Your task to perform on an android device: toggle priority inbox in the gmail app Image 0: 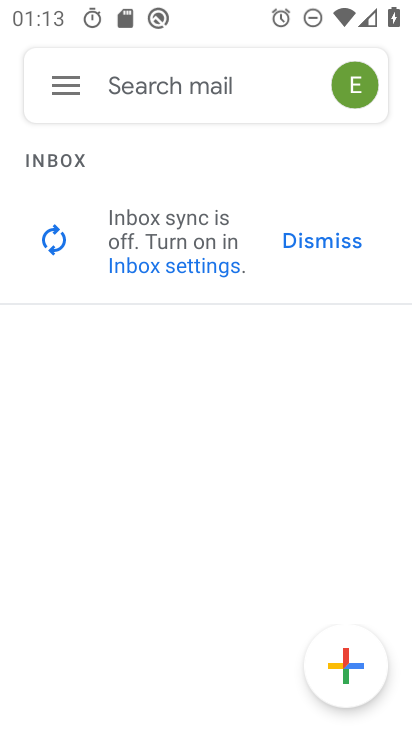
Step 0: press back button
Your task to perform on an android device: toggle priority inbox in the gmail app Image 1: 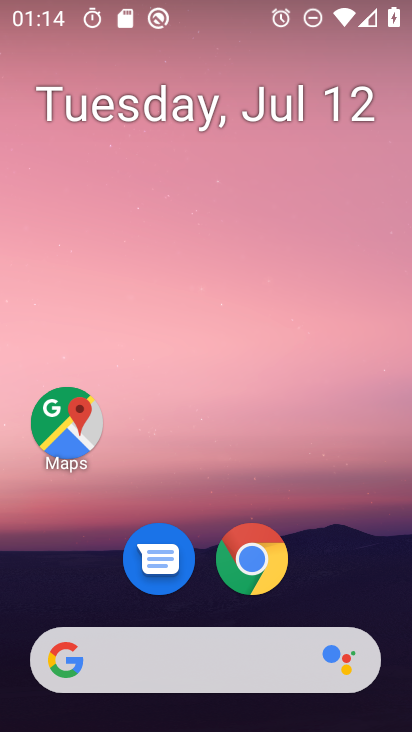
Step 1: drag from (234, 613) to (295, 25)
Your task to perform on an android device: toggle priority inbox in the gmail app Image 2: 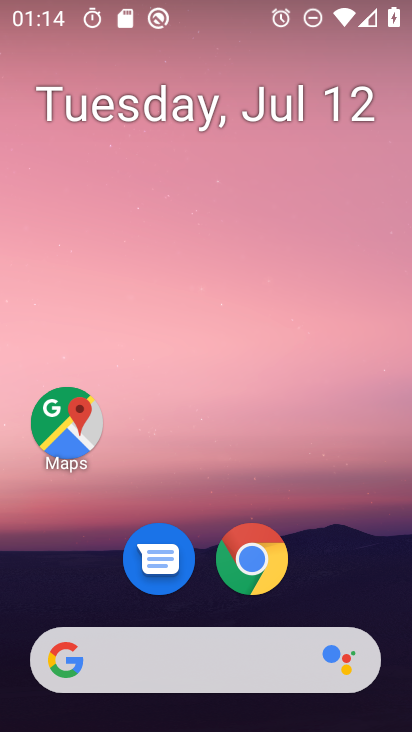
Step 2: drag from (80, 602) to (210, 101)
Your task to perform on an android device: toggle priority inbox in the gmail app Image 3: 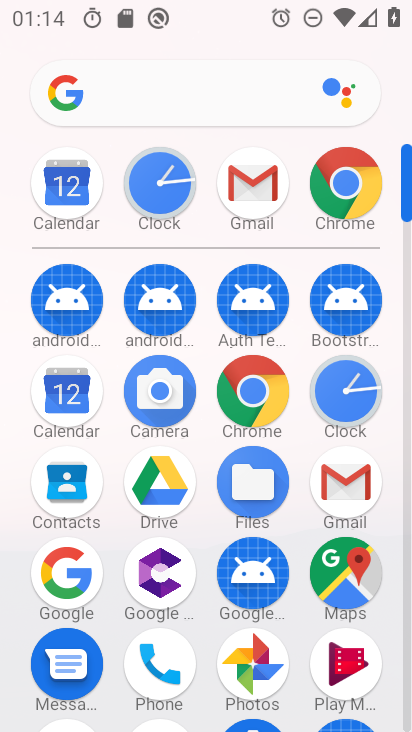
Step 3: click (266, 172)
Your task to perform on an android device: toggle priority inbox in the gmail app Image 4: 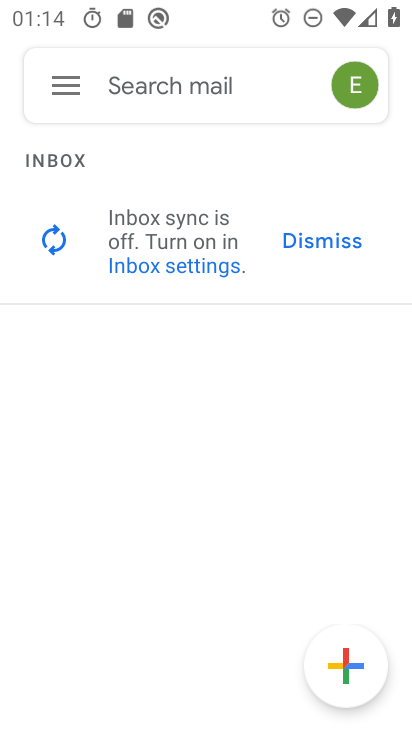
Step 4: click (71, 79)
Your task to perform on an android device: toggle priority inbox in the gmail app Image 5: 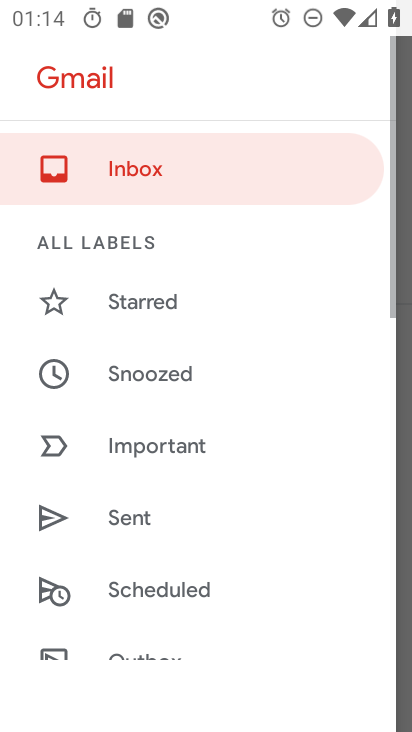
Step 5: drag from (123, 590) to (284, 35)
Your task to perform on an android device: toggle priority inbox in the gmail app Image 6: 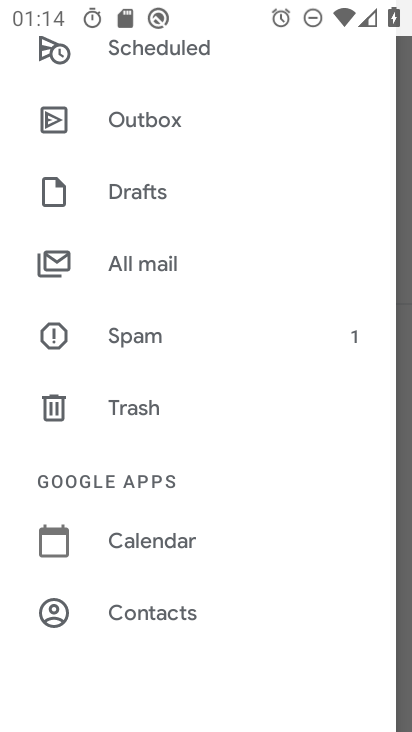
Step 6: drag from (206, 180) to (168, 566)
Your task to perform on an android device: toggle priority inbox in the gmail app Image 7: 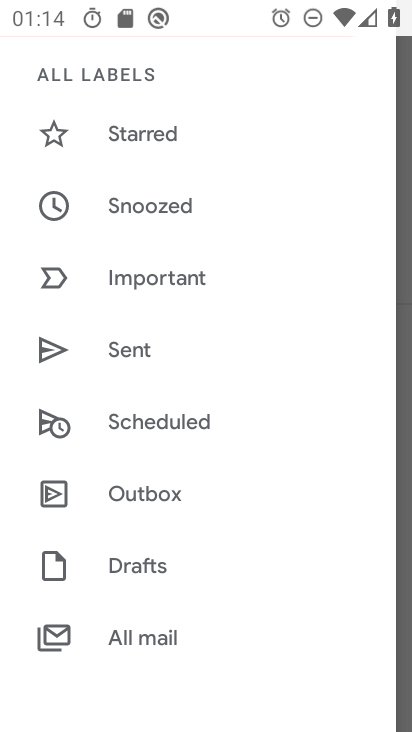
Step 7: drag from (202, 203) to (152, 724)
Your task to perform on an android device: toggle priority inbox in the gmail app Image 8: 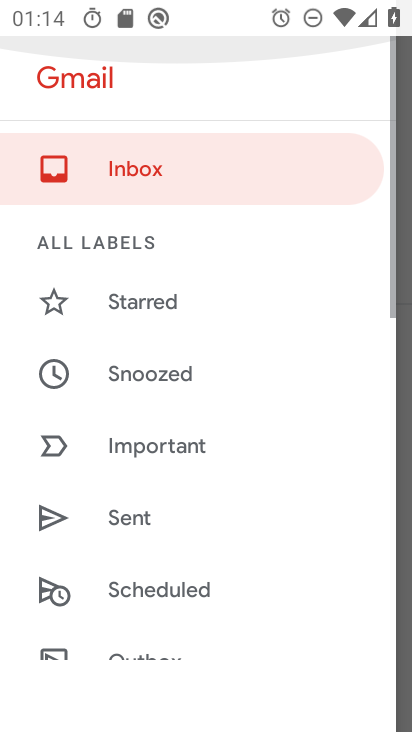
Step 8: drag from (148, 659) to (279, 12)
Your task to perform on an android device: toggle priority inbox in the gmail app Image 9: 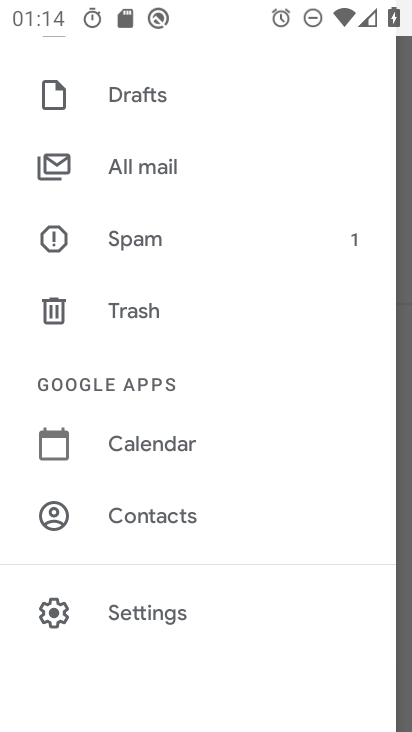
Step 9: click (162, 620)
Your task to perform on an android device: toggle priority inbox in the gmail app Image 10: 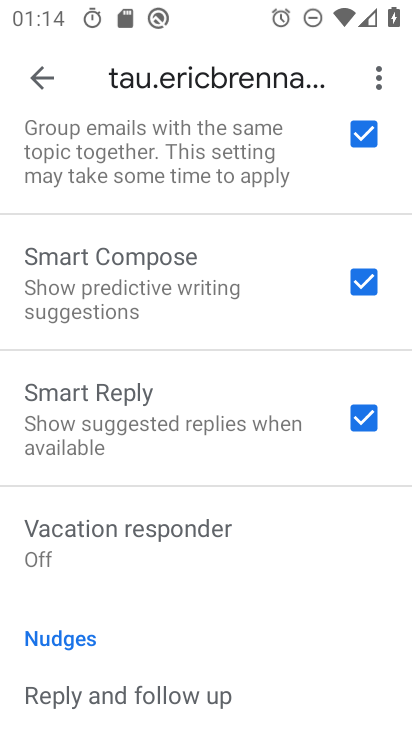
Step 10: drag from (90, 117) to (180, 712)
Your task to perform on an android device: toggle priority inbox in the gmail app Image 11: 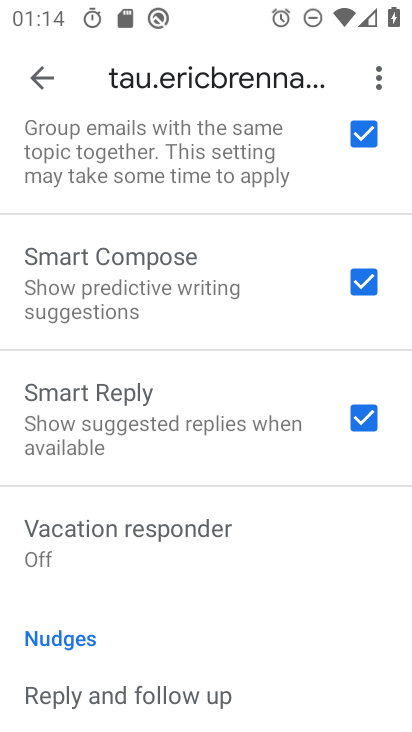
Step 11: drag from (215, 195) to (196, 716)
Your task to perform on an android device: toggle priority inbox in the gmail app Image 12: 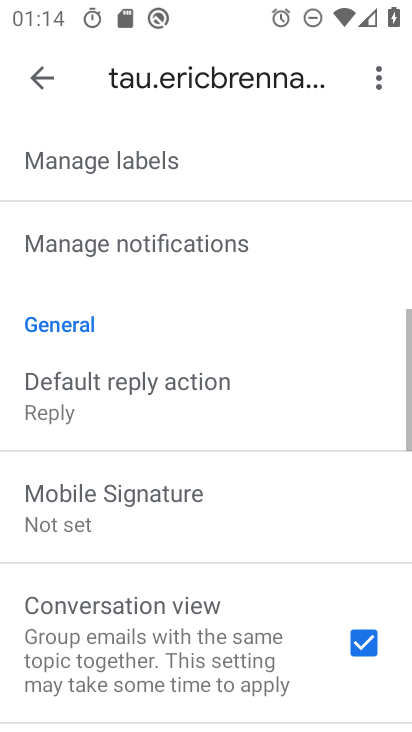
Step 12: drag from (183, 222) to (161, 731)
Your task to perform on an android device: toggle priority inbox in the gmail app Image 13: 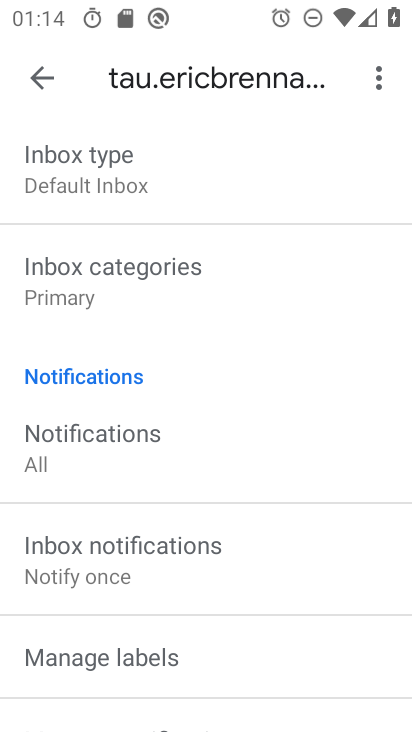
Step 13: click (82, 178)
Your task to perform on an android device: toggle priority inbox in the gmail app Image 14: 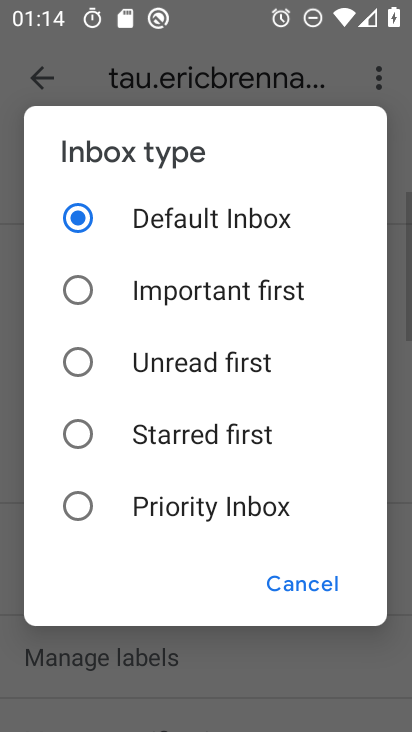
Step 14: click (69, 509)
Your task to perform on an android device: toggle priority inbox in the gmail app Image 15: 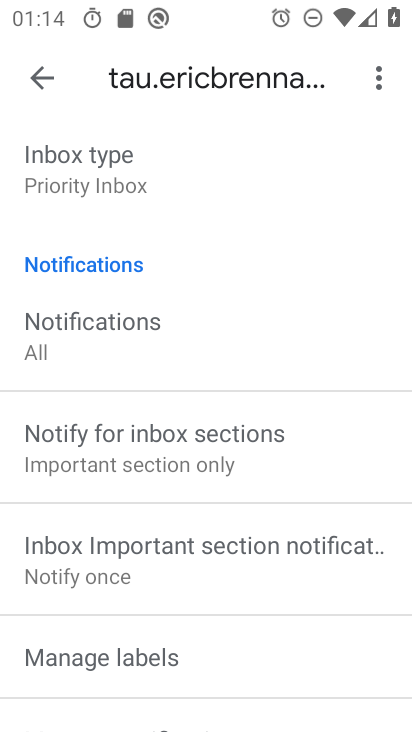
Step 15: task complete